Your task to perform on an android device: open app "Adobe Acrobat Reader: Edit PDF" Image 0: 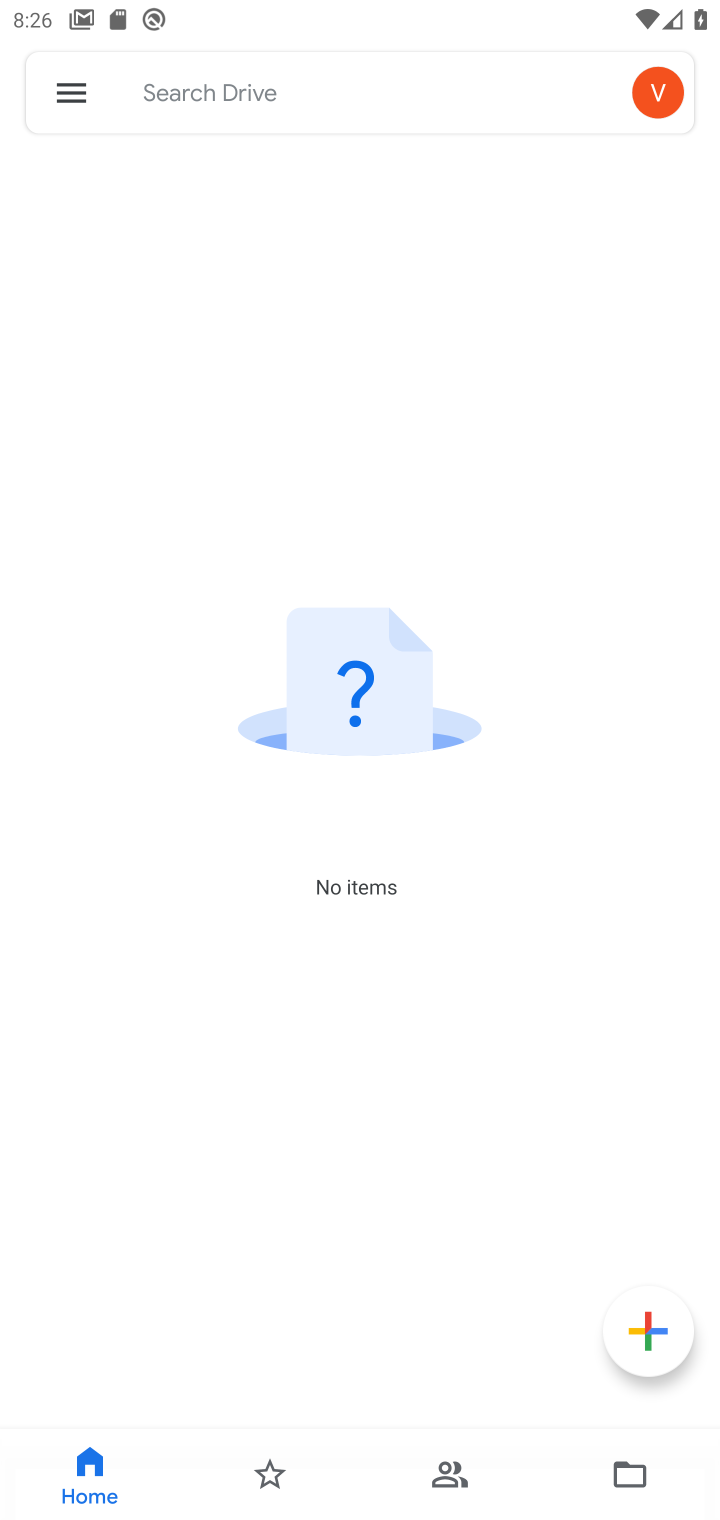
Step 0: type "ado"
Your task to perform on an android device: open app "Adobe Acrobat Reader: Edit PDF" Image 1: 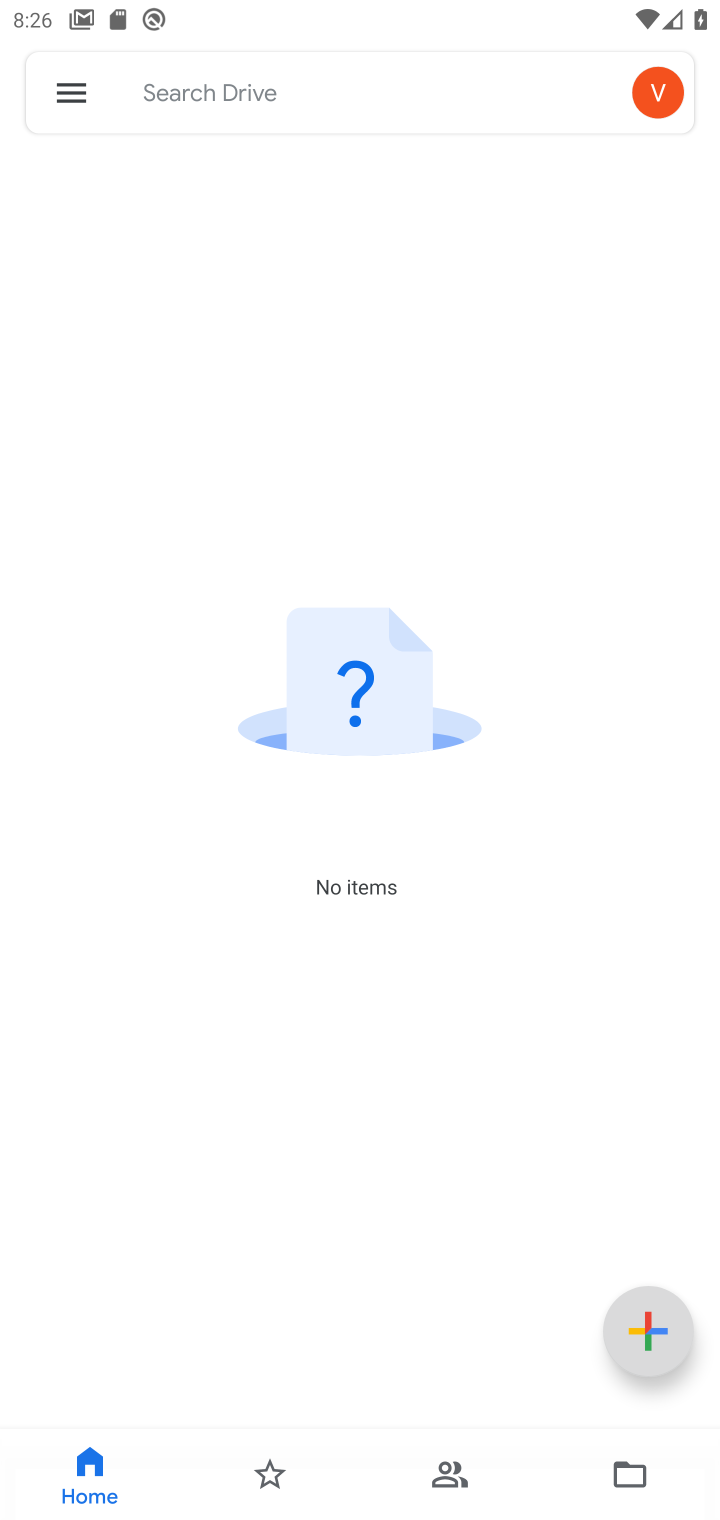
Step 1: press home button
Your task to perform on an android device: open app "Adobe Acrobat Reader: Edit PDF" Image 2: 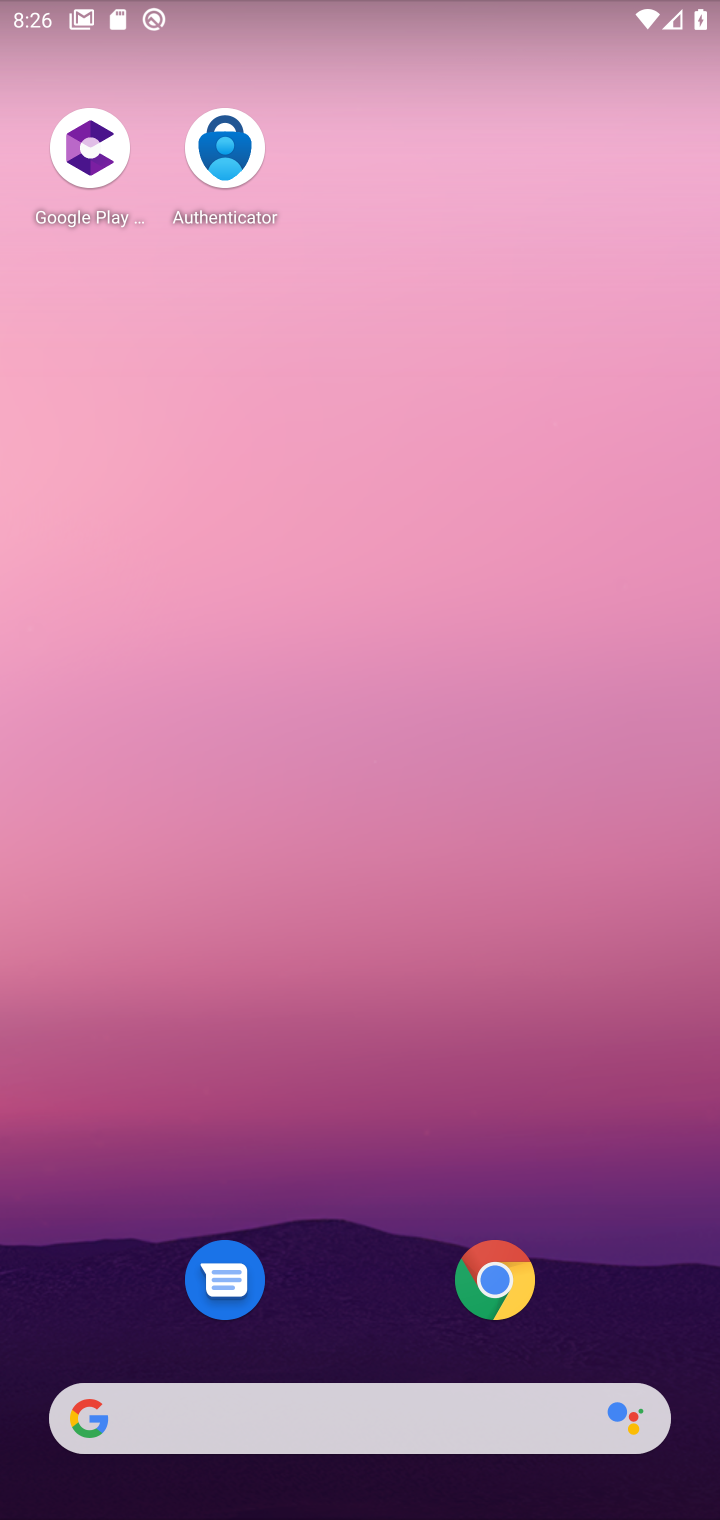
Step 2: drag from (358, 1383) to (254, 634)
Your task to perform on an android device: open app "Adobe Acrobat Reader: Edit PDF" Image 3: 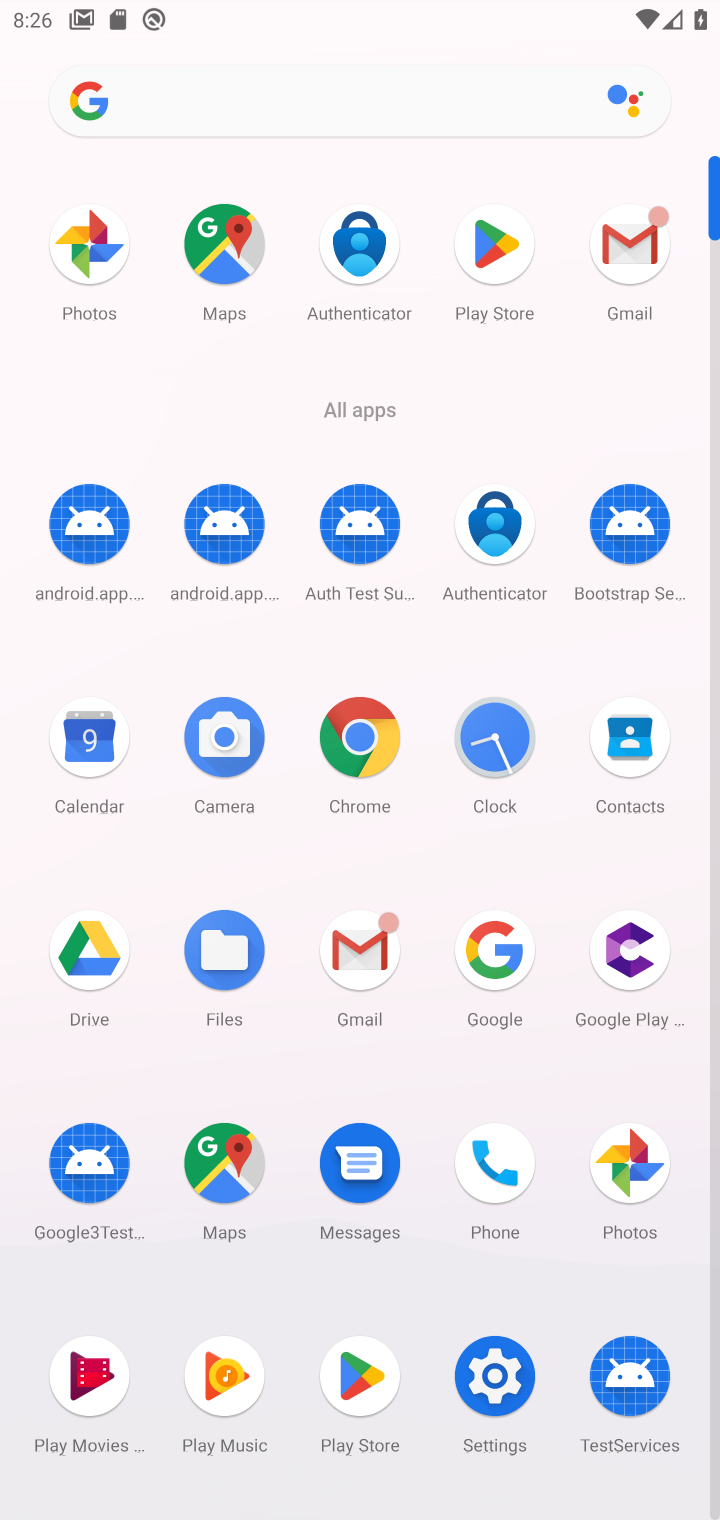
Step 3: click (356, 1380)
Your task to perform on an android device: open app "Adobe Acrobat Reader: Edit PDF" Image 4: 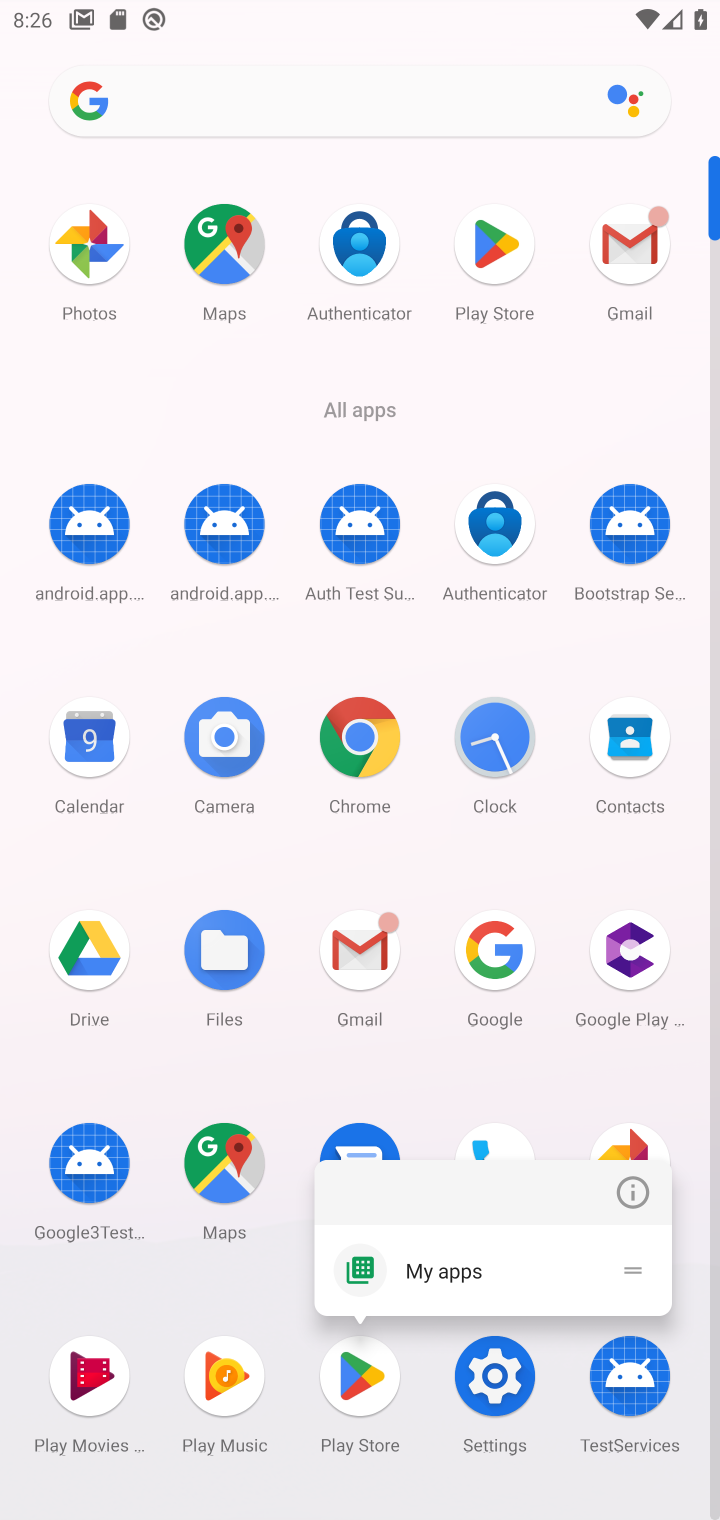
Step 4: click (355, 1387)
Your task to perform on an android device: open app "Adobe Acrobat Reader: Edit PDF" Image 5: 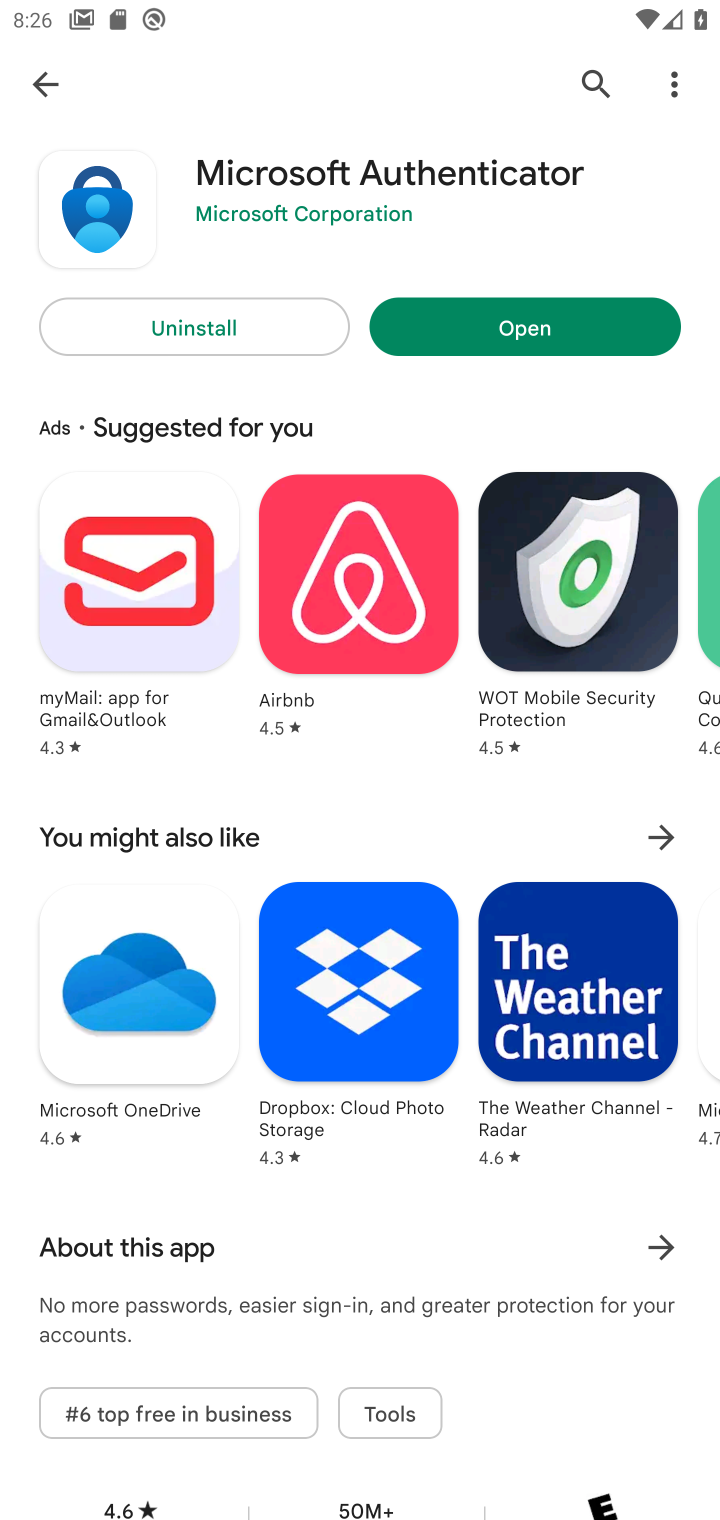
Step 5: click (54, 88)
Your task to perform on an android device: open app "Adobe Acrobat Reader: Edit PDF" Image 6: 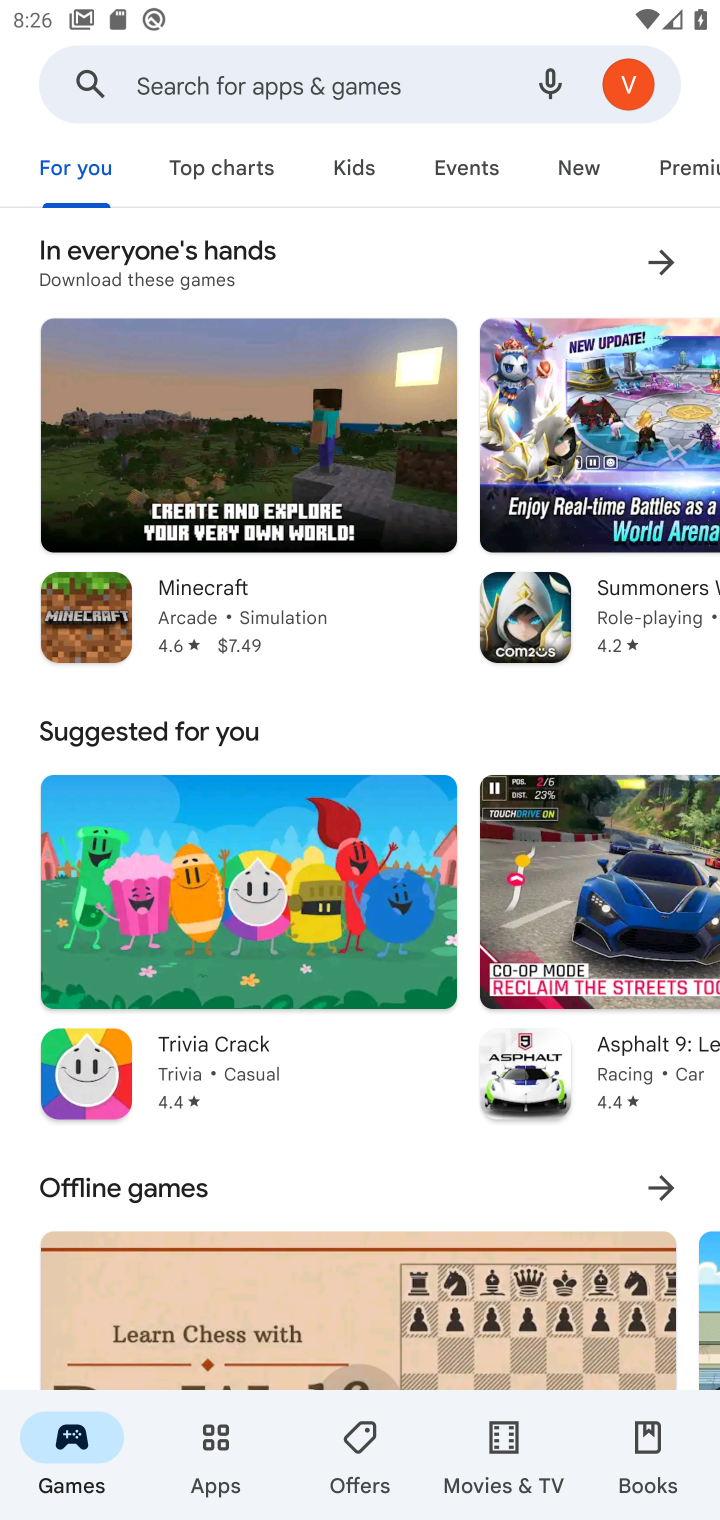
Step 6: click (250, 75)
Your task to perform on an android device: open app "Adobe Acrobat Reader: Edit PDF" Image 7: 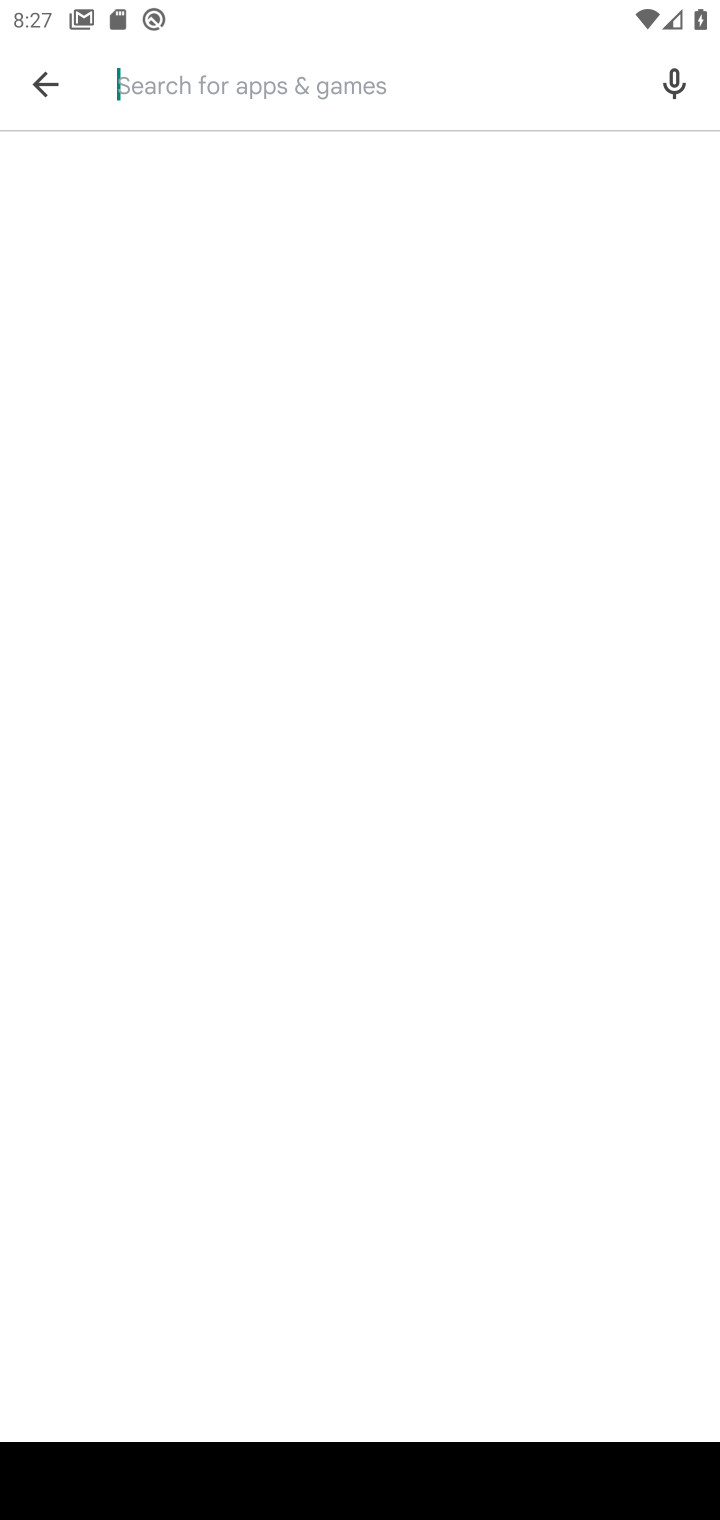
Step 7: type "adobe acrobat reader"
Your task to perform on an android device: open app "Adobe Acrobat Reader: Edit PDF" Image 8: 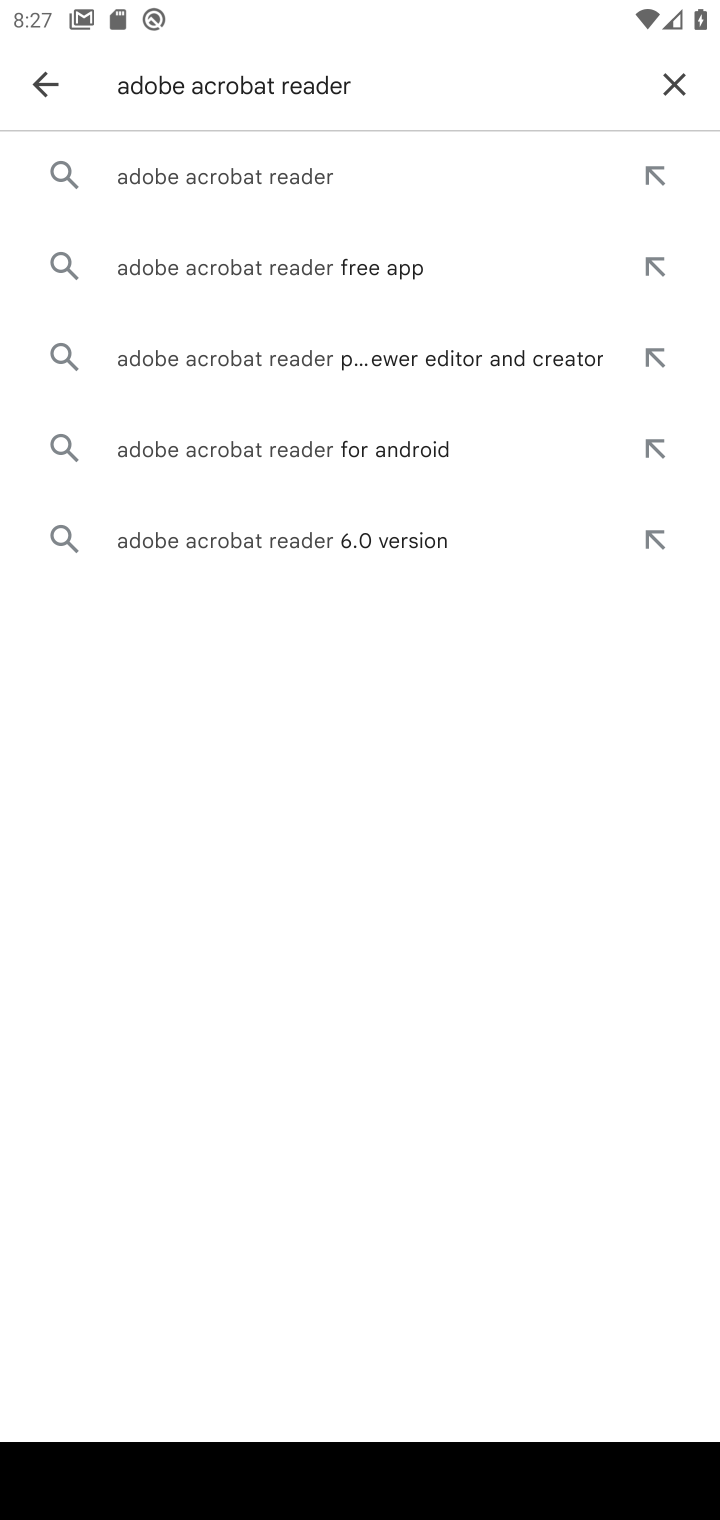
Step 8: click (293, 189)
Your task to perform on an android device: open app "Adobe Acrobat Reader: Edit PDF" Image 9: 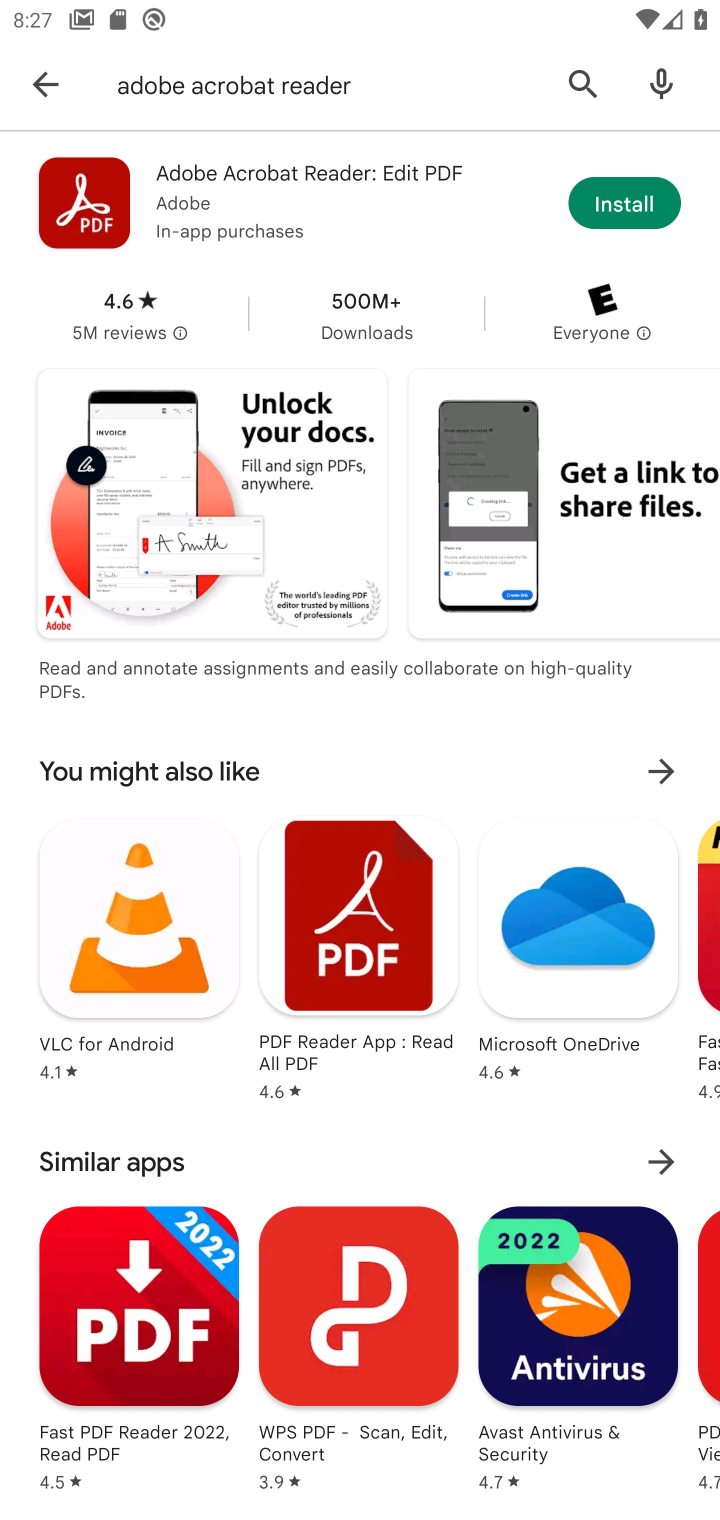
Step 9: click (661, 207)
Your task to perform on an android device: open app "Adobe Acrobat Reader: Edit PDF" Image 10: 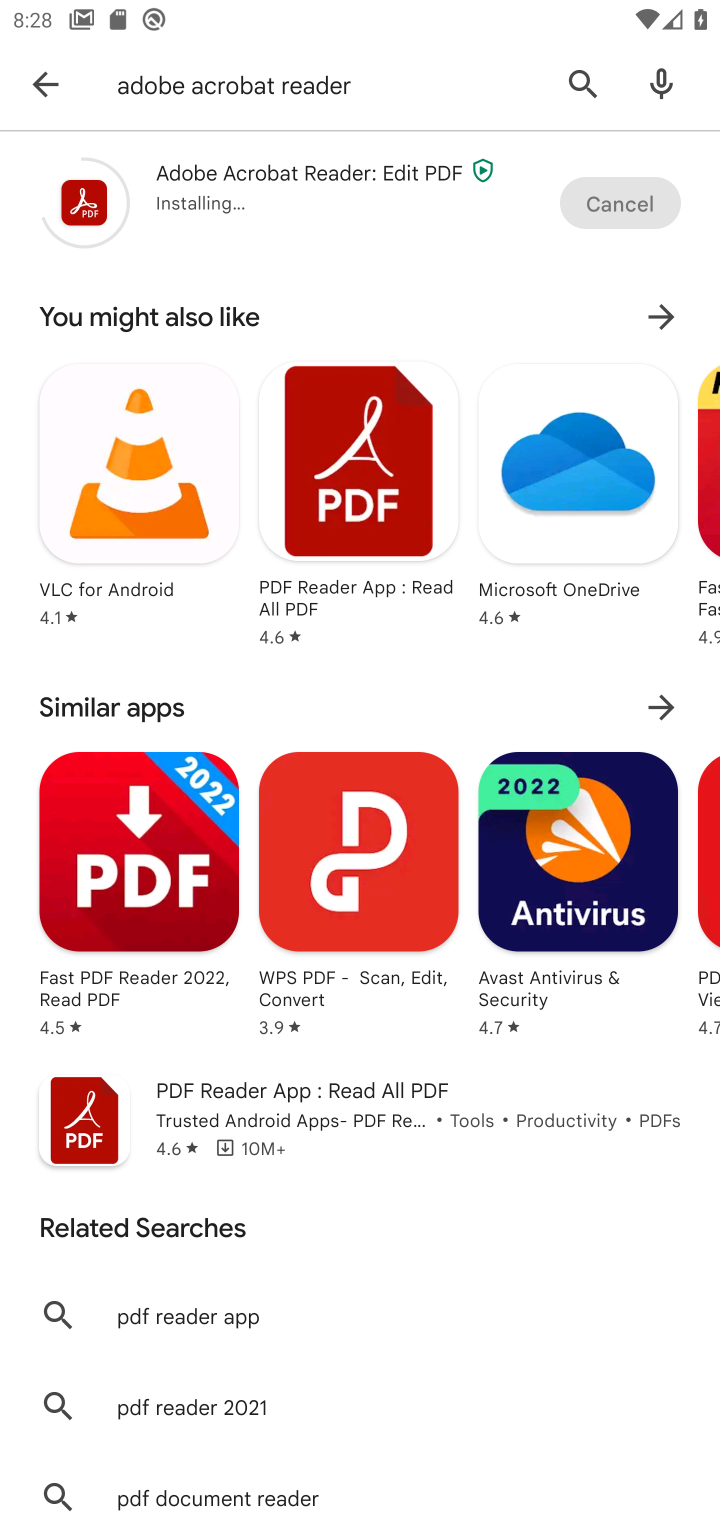
Step 10: task complete